Your task to perform on an android device: turn off javascript in the chrome app Image 0: 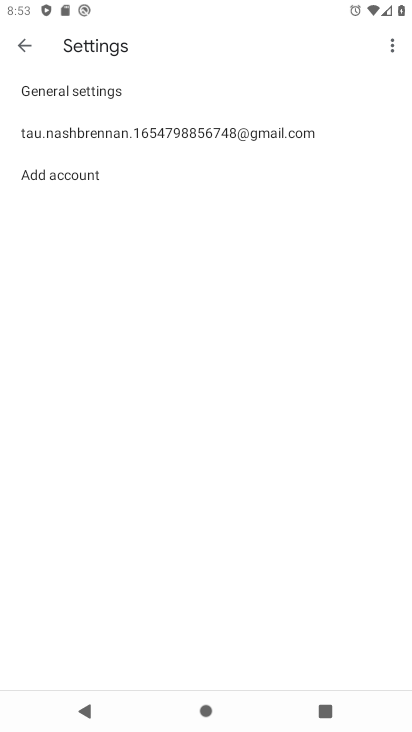
Step 0: press home button
Your task to perform on an android device: turn off javascript in the chrome app Image 1: 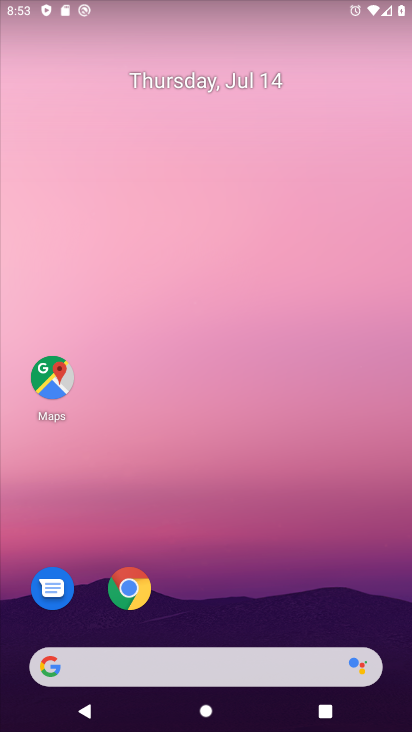
Step 1: drag from (269, 633) to (227, 4)
Your task to perform on an android device: turn off javascript in the chrome app Image 2: 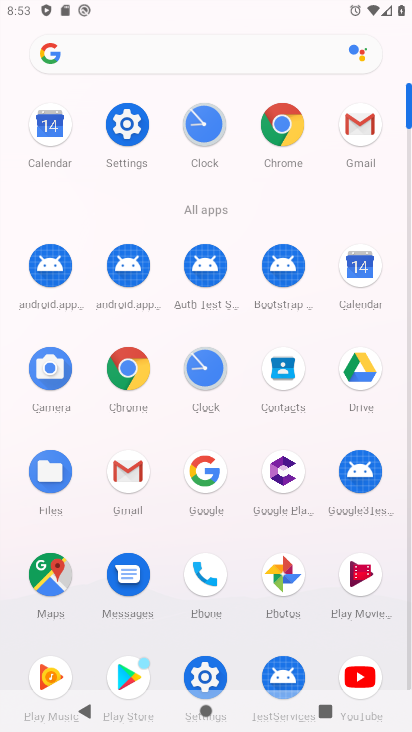
Step 2: click (287, 129)
Your task to perform on an android device: turn off javascript in the chrome app Image 3: 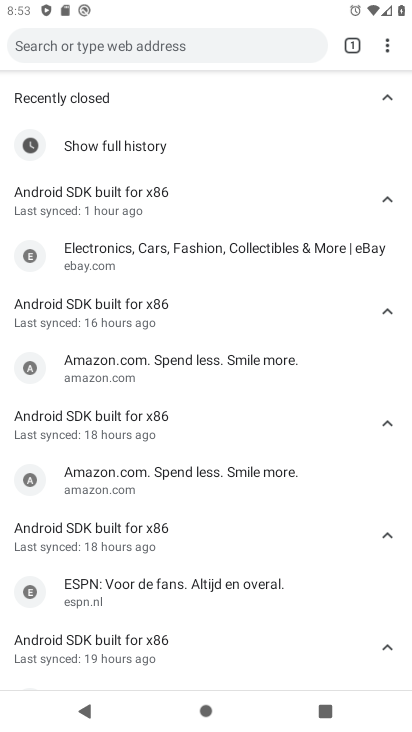
Step 3: drag from (391, 48) to (238, 379)
Your task to perform on an android device: turn off javascript in the chrome app Image 4: 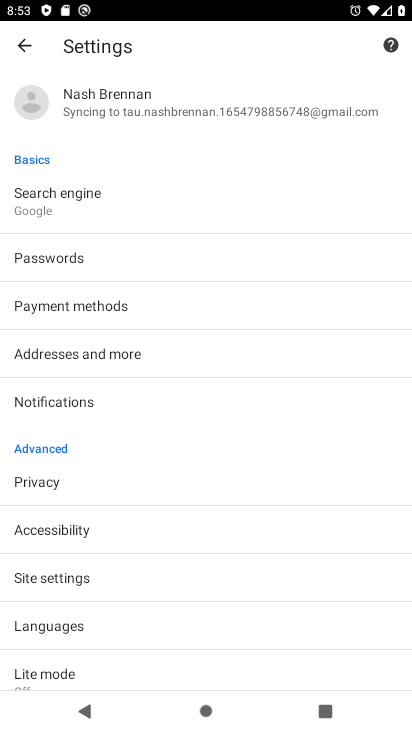
Step 4: click (103, 582)
Your task to perform on an android device: turn off javascript in the chrome app Image 5: 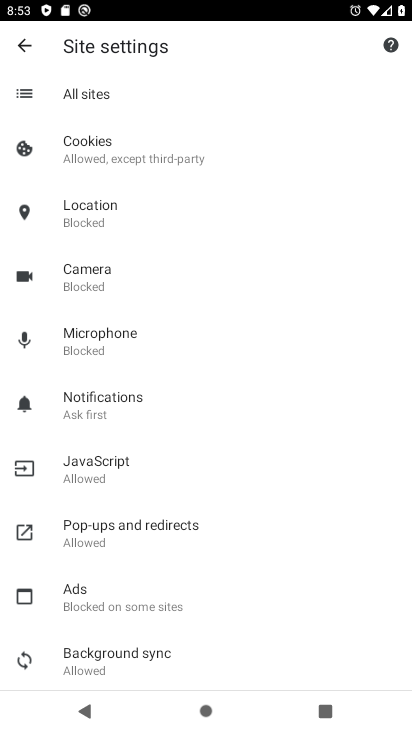
Step 5: click (77, 459)
Your task to perform on an android device: turn off javascript in the chrome app Image 6: 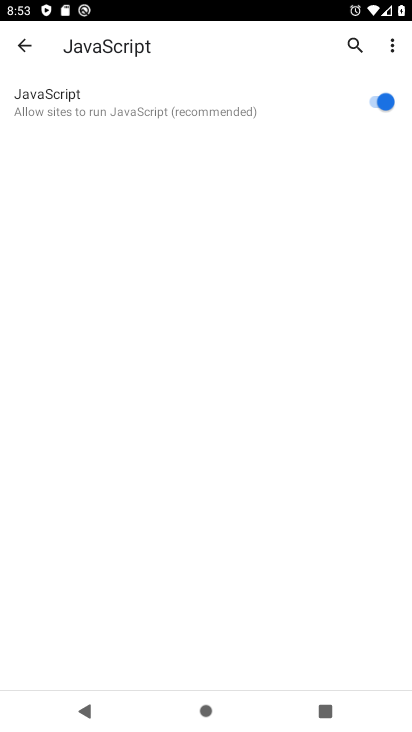
Step 6: click (374, 97)
Your task to perform on an android device: turn off javascript in the chrome app Image 7: 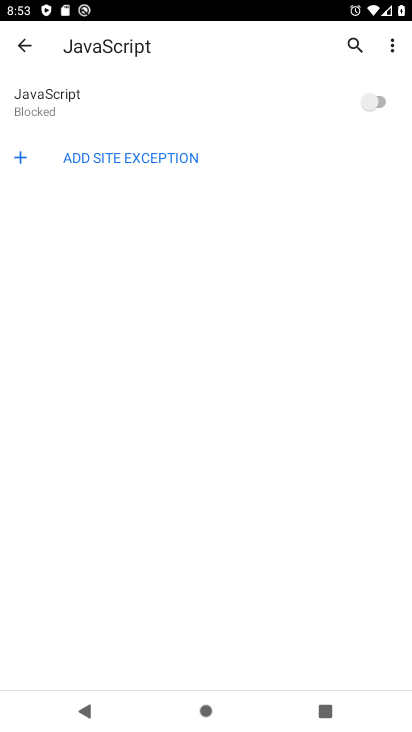
Step 7: task complete